Your task to perform on an android device: Search for seafood restaurants on Google Maps Image 0: 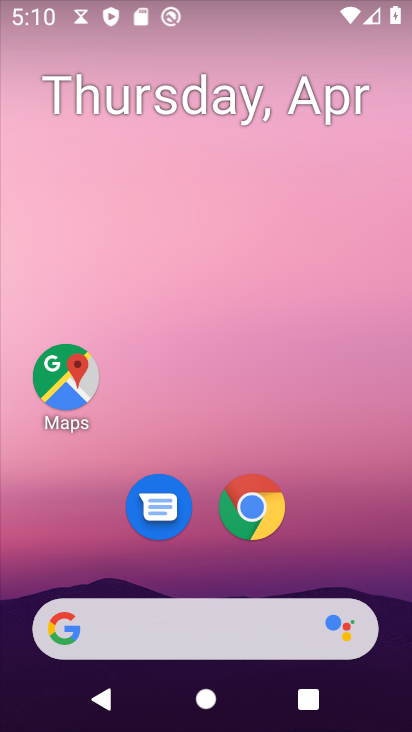
Step 0: drag from (376, 333) to (362, 173)
Your task to perform on an android device: Search for seafood restaurants on Google Maps Image 1: 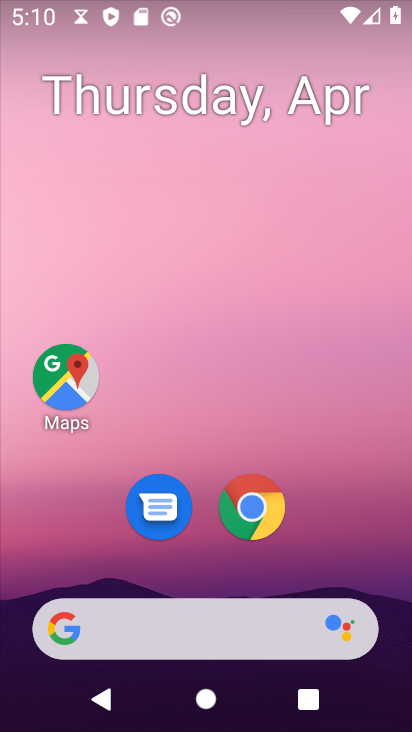
Step 1: drag from (333, 542) to (332, 172)
Your task to perform on an android device: Search for seafood restaurants on Google Maps Image 2: 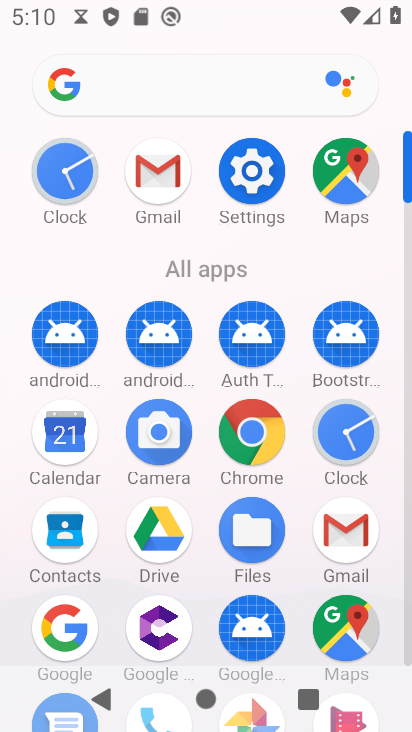
Step 2: click (324, 170)
Your task to perform on an android device: Search for seafood restaurants on Google Maps Image 3: 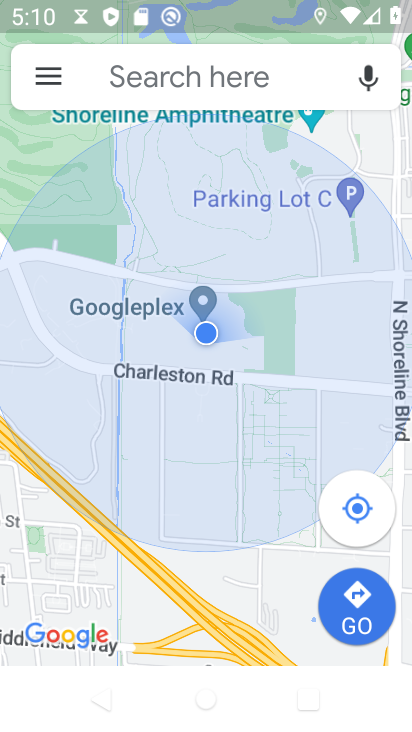
Step 3: click (200, 73)
Your task to perform on an android device: Search for seafood restaurants on Google Maps Image 4: 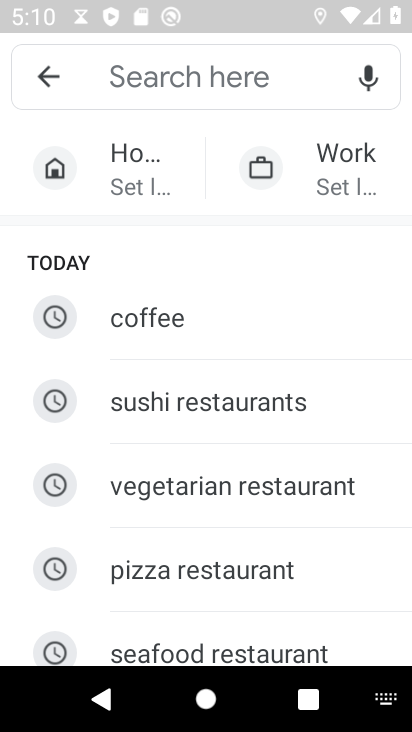
Step 4: click (183, 651)
Your task to perform on an android device: Search for seafood restaurants on Google Maps Image 5: 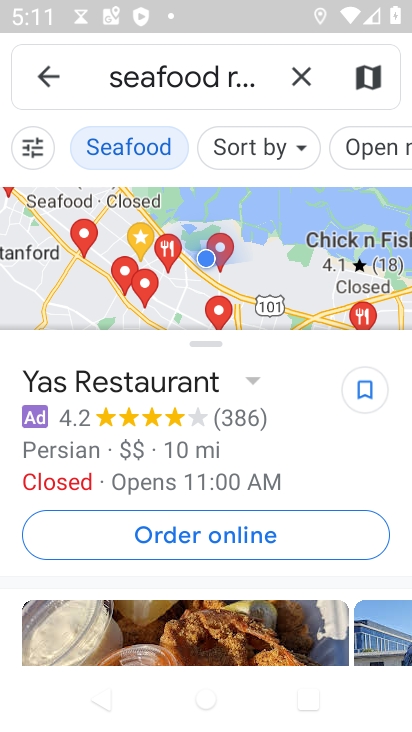
Step 5: task complete